Your task to perform on an android device: Search for "beats solo 3" on ebay, select the first entry, and add it to the cart. Image 0: 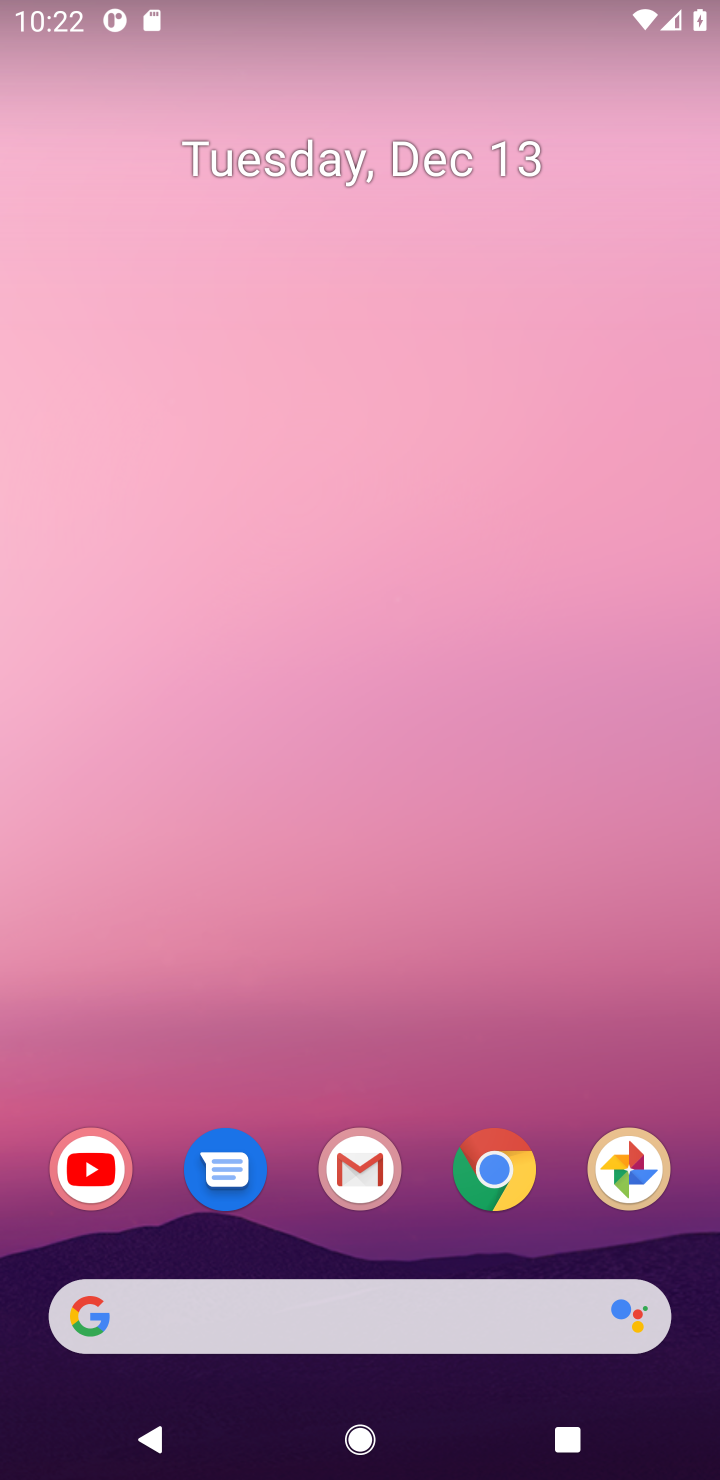
Step 0: click (319, 1299)
Your task to perform on an android device: Search for "beats solo 3" on ebay, select the first entry, and add it to the cart. Image 1: 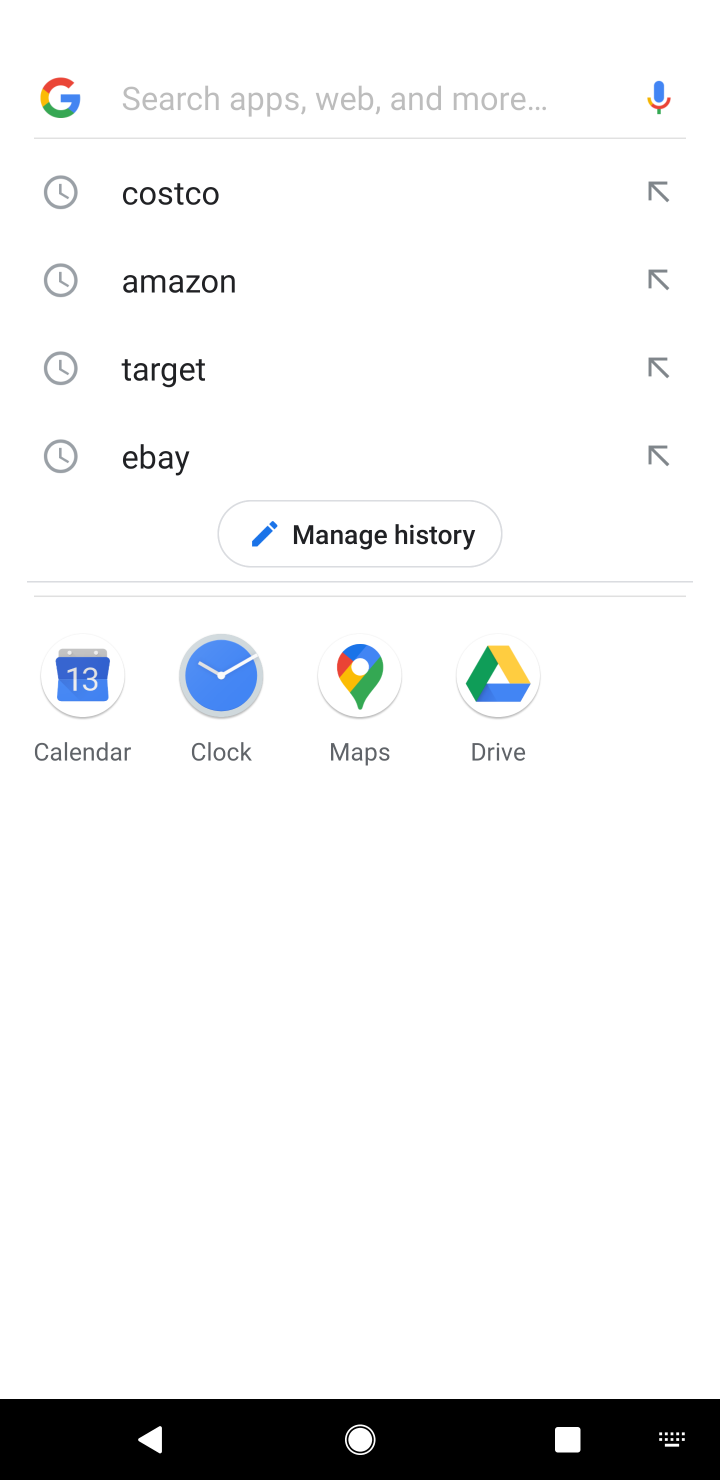
Step 1: click (162, 479)
Your task to perform on an android device: Search for "beats solo 3" on ebay, select the first entry, and add it to the cart. Image 2: 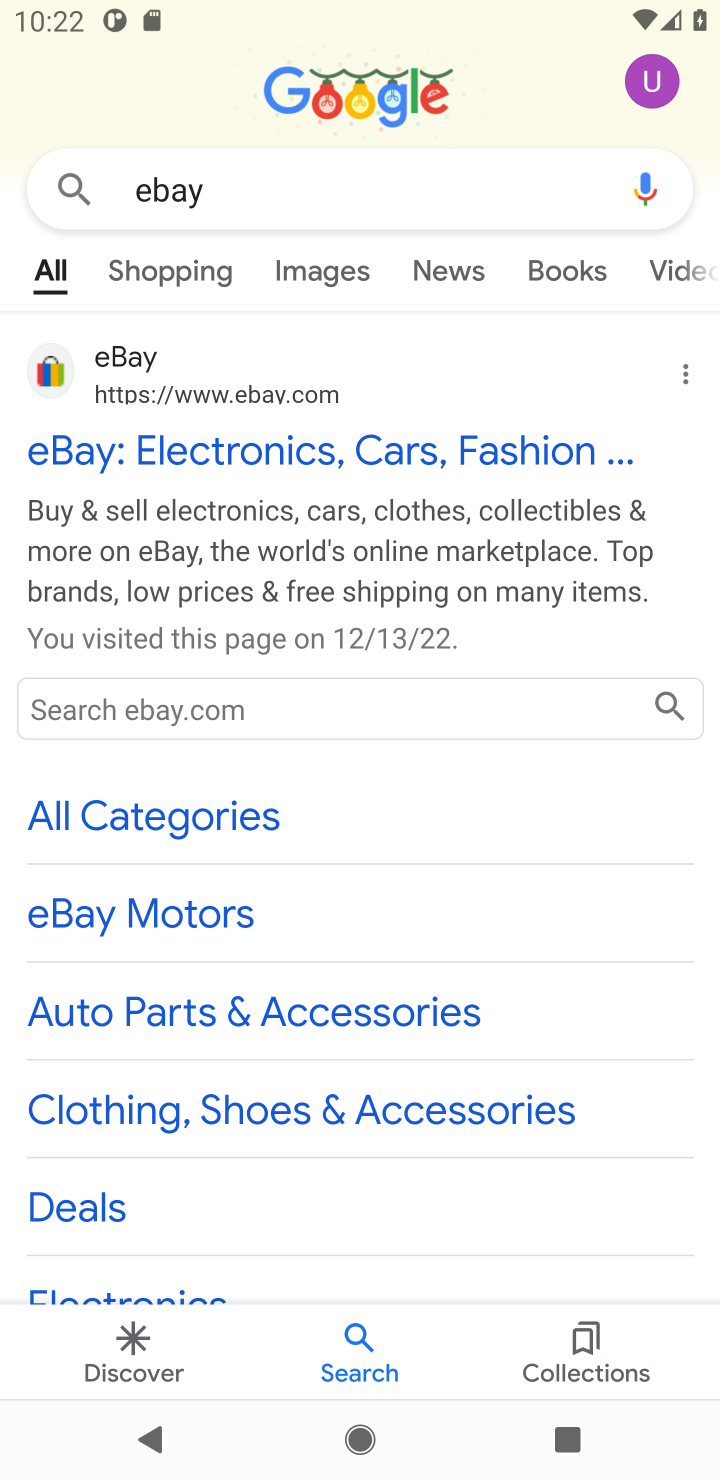
Step 2: click (153, 428)
Your task to perform on an android device: Search for "beats solo 3" on ebay, select the first entry, and add it to the cart. Image 3: 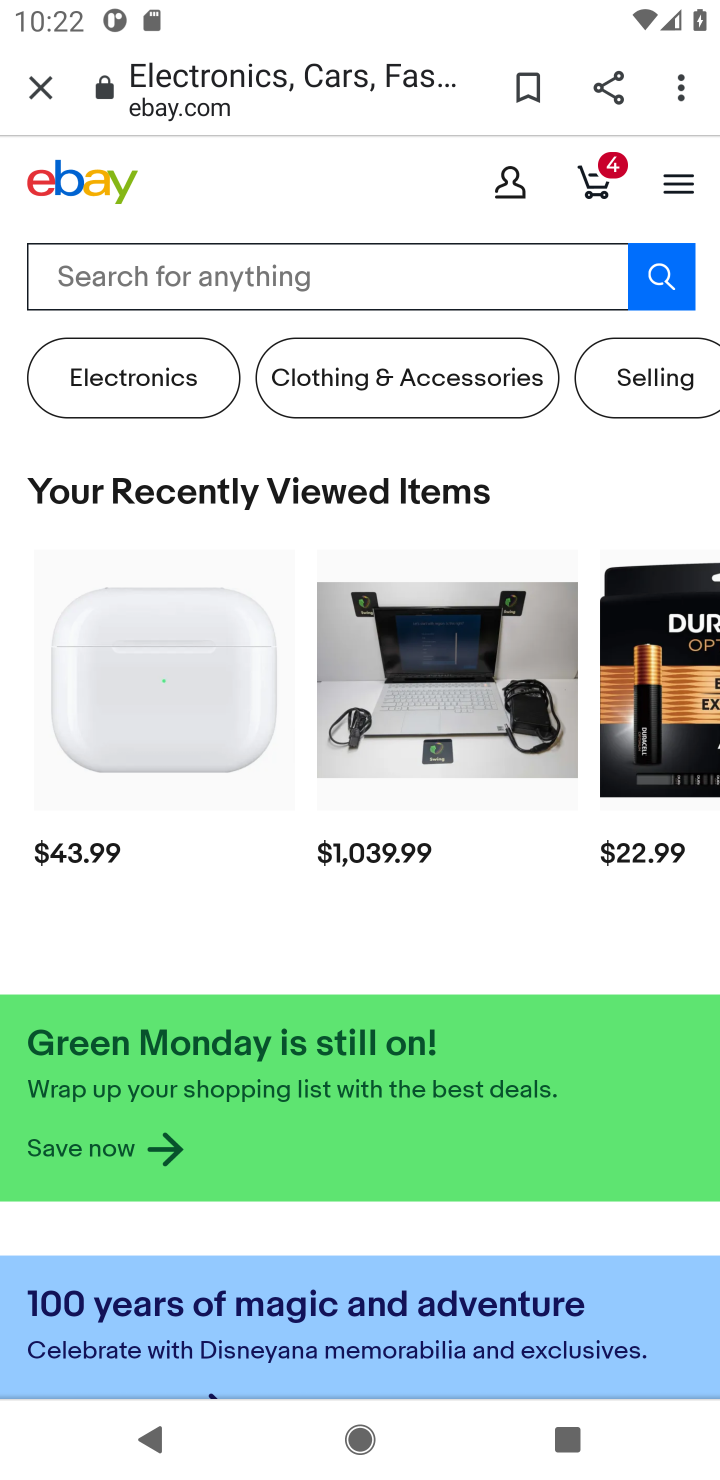
Step 3: click (238, 284)
Your task to perform on an android device: Search for "beats solo 3" on ebay, select the first entry, and add it to the cart. Image 4: 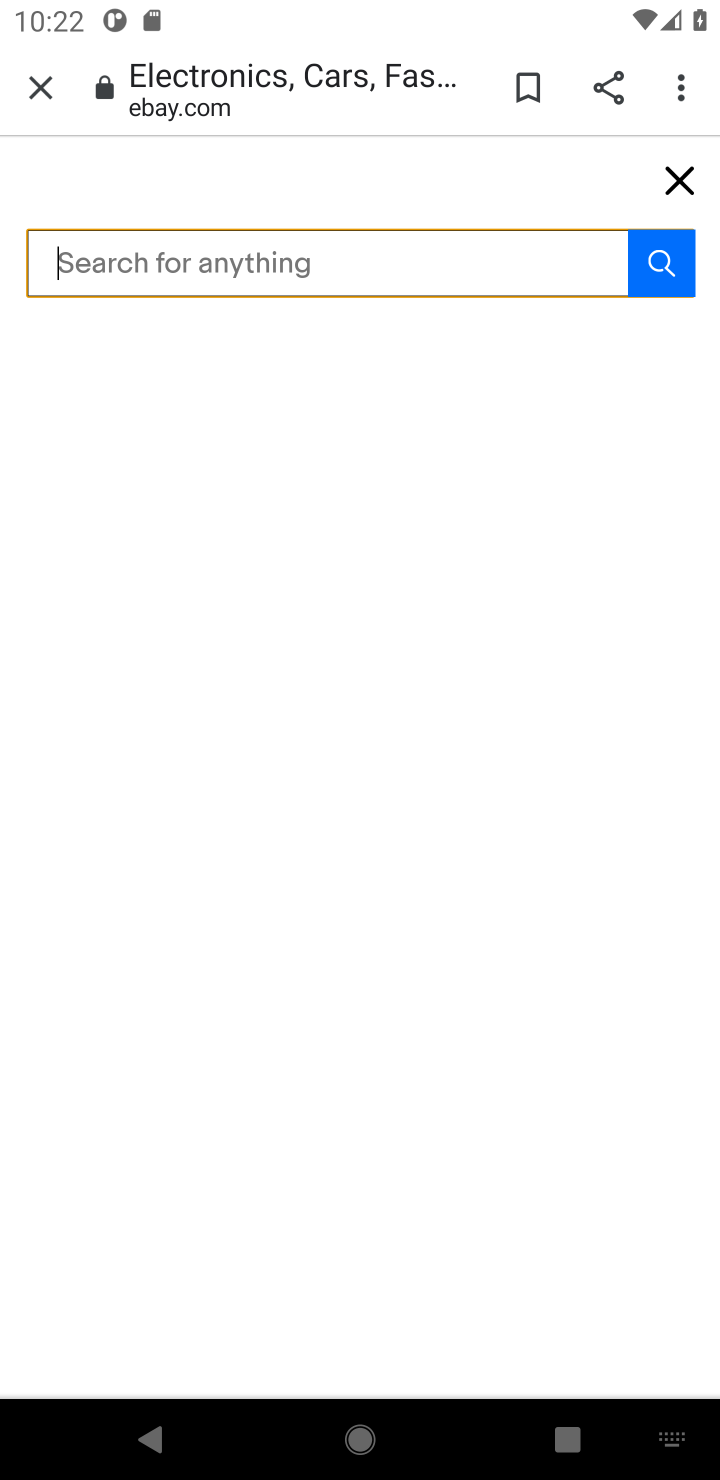
Step 4: type "beats solo 3"
Your task to perform on an android device: Search for "beats solo 3" on ebay, select the first entry, and add it to the cart. Image 5: 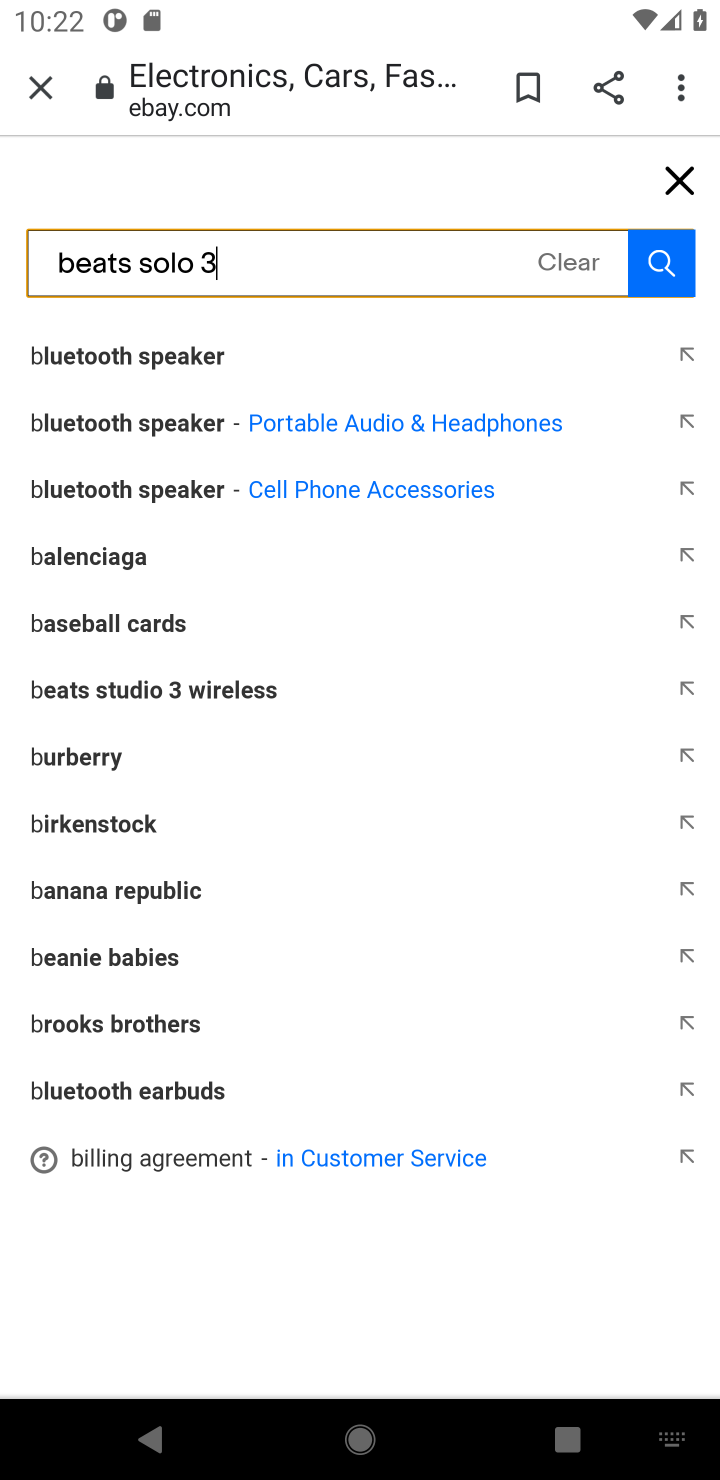
Step 5: click (657, 284)
Your task to perform on an android device: Search for "beats solo 3" on ebay, select the first entry, and add it to the cart. Image 6: 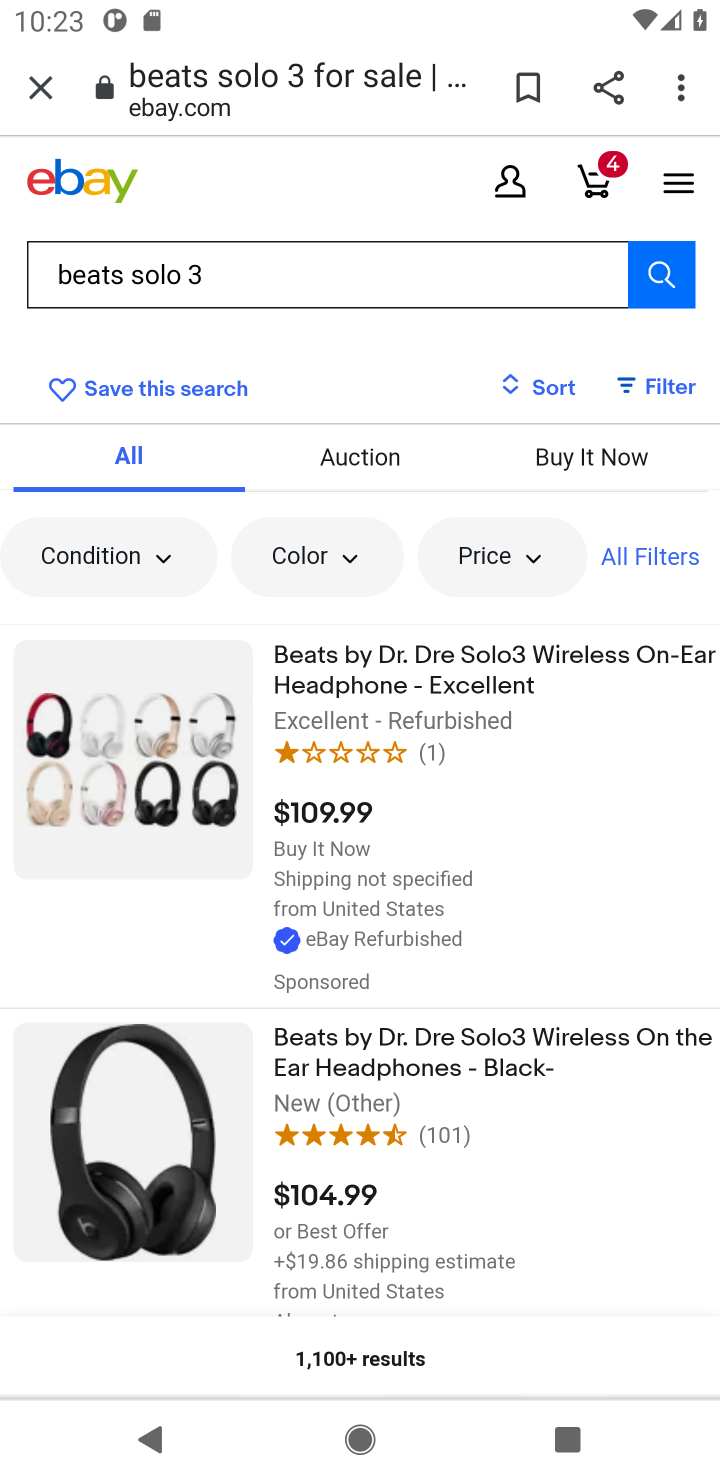
Step 6: click (438, 673)
Your task to perform on an android device: Search for "beats solo 3" on ebay, select the first entry, and add it to the cart. Image 7: 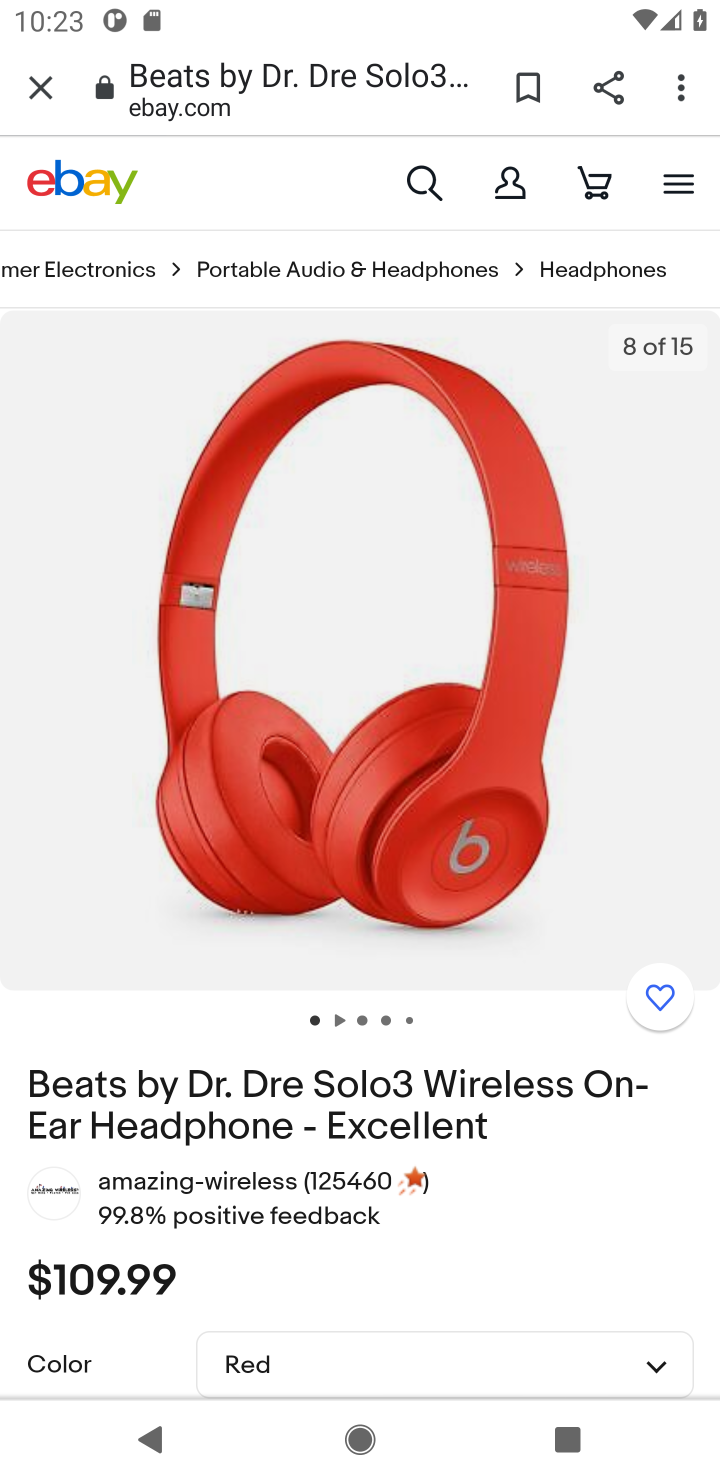
Step 7: drag from (375, 1156) to (356, 581)
Your task to perform on an android device: Search for "beats solo 3" on ebay, select the first entry, and add it to the cart. Image 8: 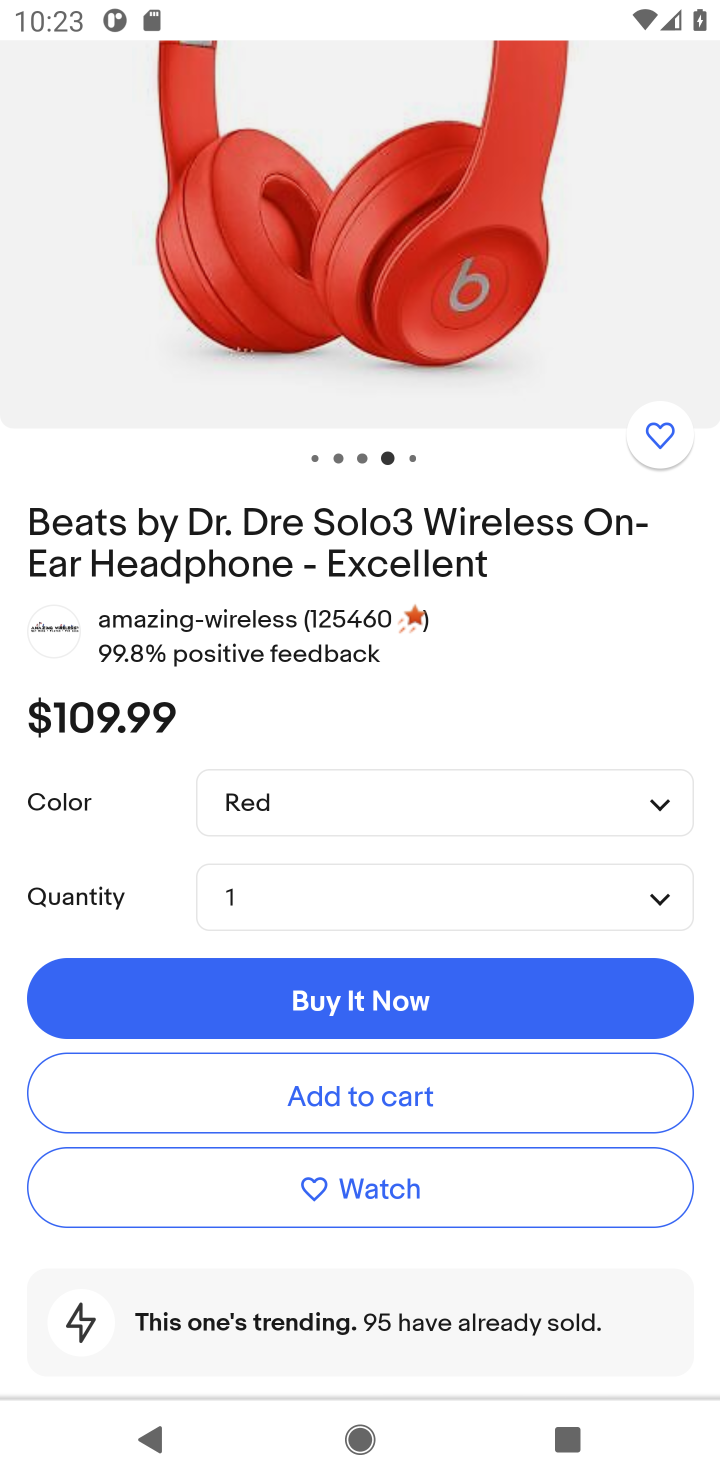
Step 8: click (312, 1299)
Your task to perform on an android device: Search for "beats solo 3" on ebay, select the first entry, and add it to the cart. Image 9: 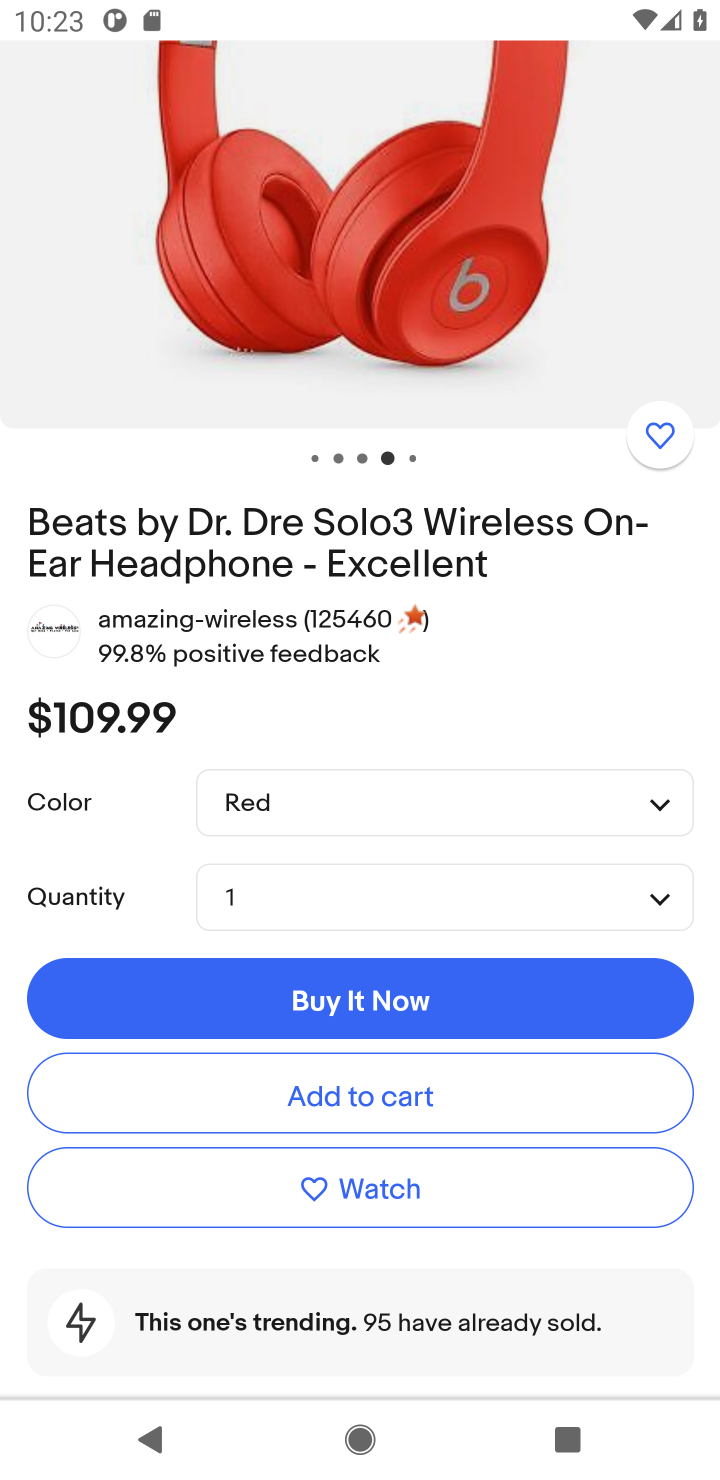
Step 9: click (371, 1103)
Your task to perform on an android device: Search for "beats solo 3" on ebay, select the first entry, and add it to the cart. Image 10: 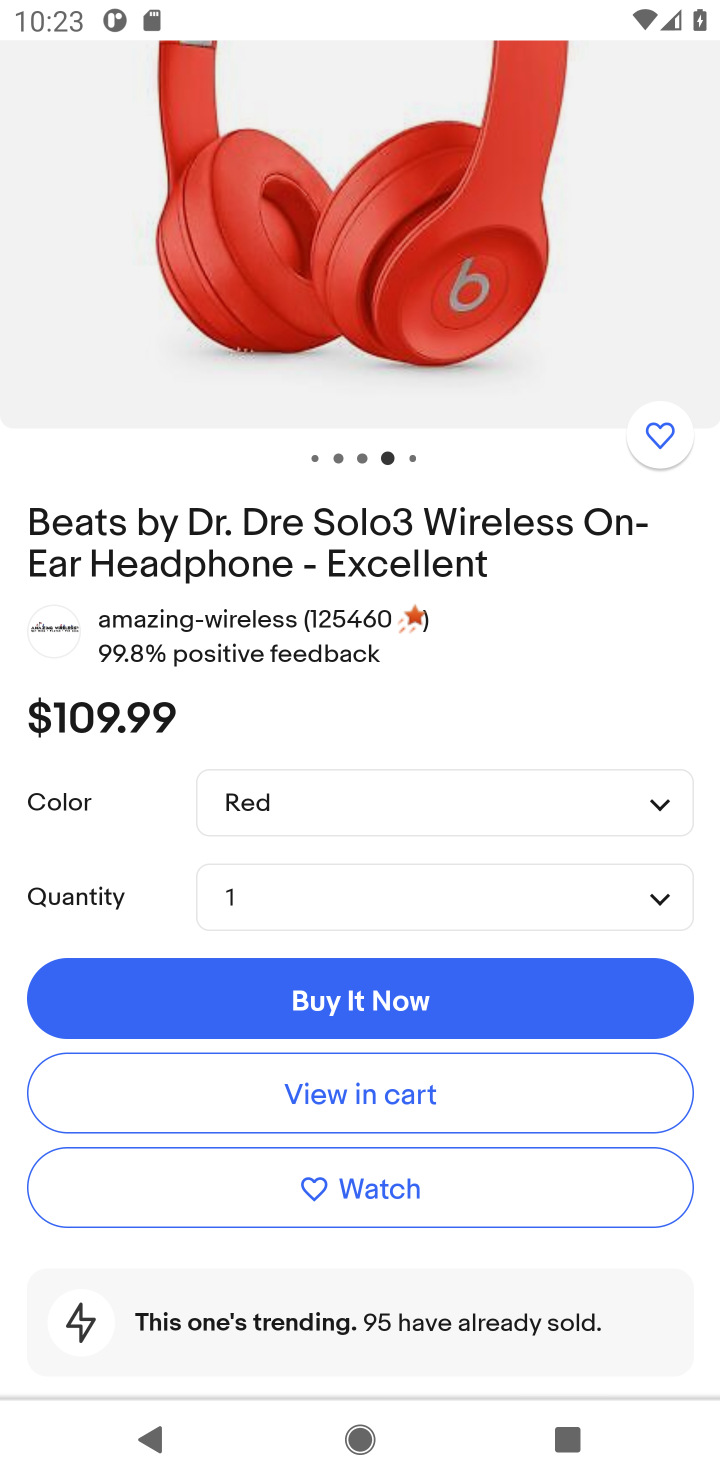
Step 10: task complete